Your task to perform on an android device: toggle priority inbox in the gmail app Image 0: 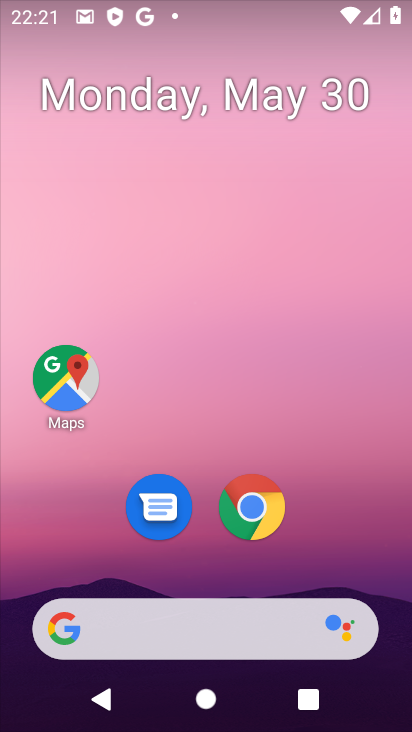
Step 0: drag from (360, 554) to (341, 151)
Your task to perform on an android device: toggle priority inbox in the gmail app Image 1: 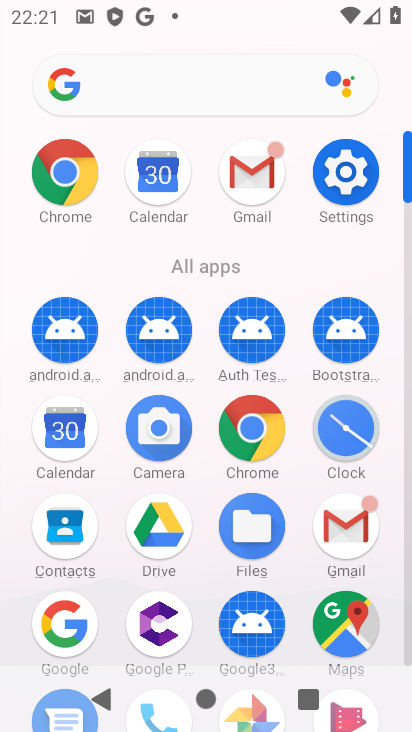
Step 1: click (338, 535)
Your task to perform on an android device: toggle priority inbox in the gmail app Image 2: 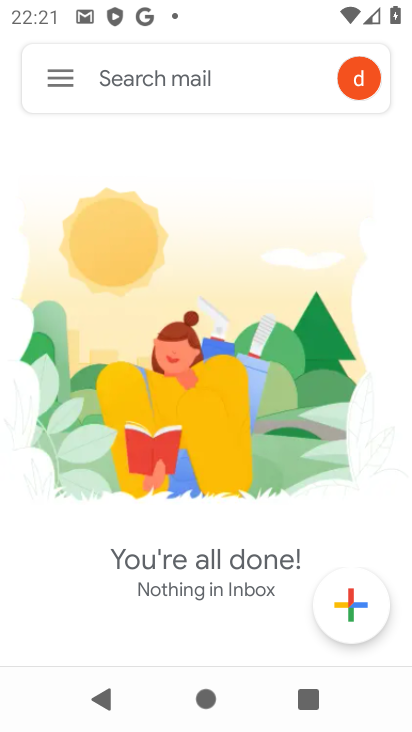
Step 2: click (56, 83)
Your task to perform on an android device: toggle priority inbox in the gmail app Image 3: 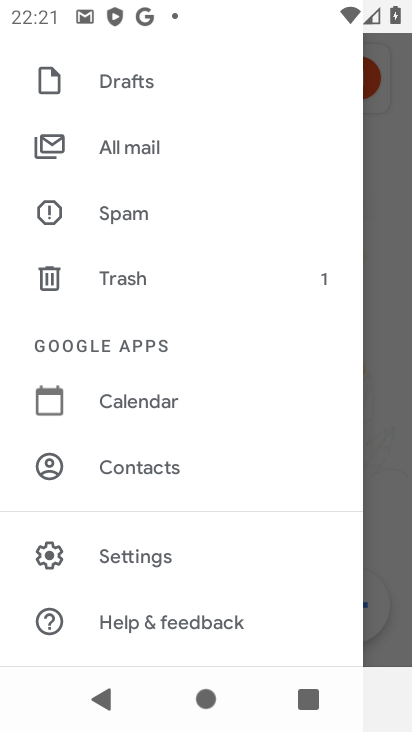
Step 3: drag from (267, 187) to (269, 288)
Your task to perform on an android device: toggle priority inbox in the gmail app Image 4: 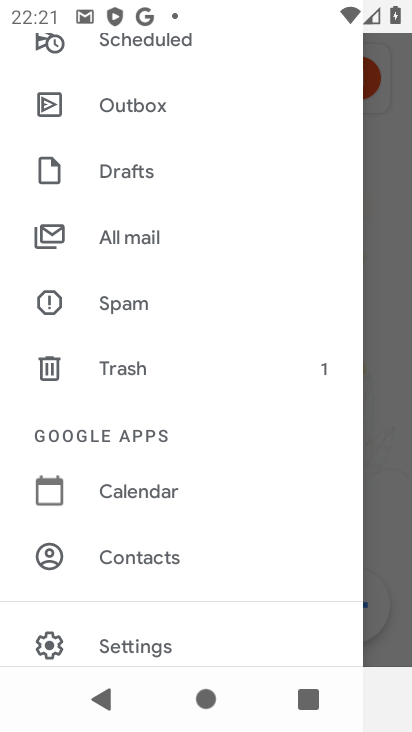
Step 4: drag from (259, 202) to (270, 265)
Your task to perform on an android device: toggle priority inbox in the gmail app Image 5: 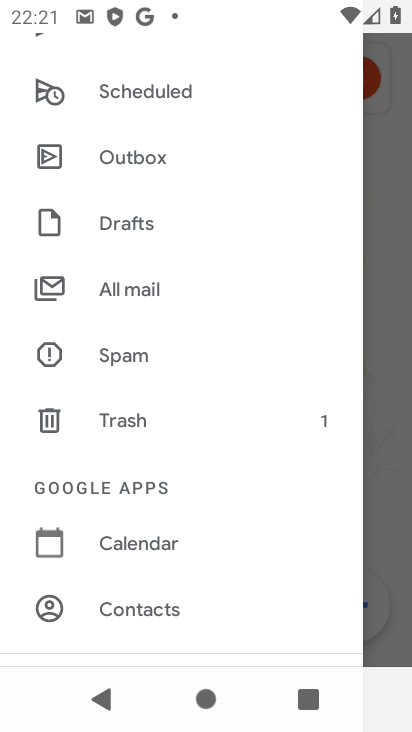
Step 5: drag from (284, 168) to (292, 289)
Your task to perform on an android device: toggle priority inbox in the gmail app Image 6: 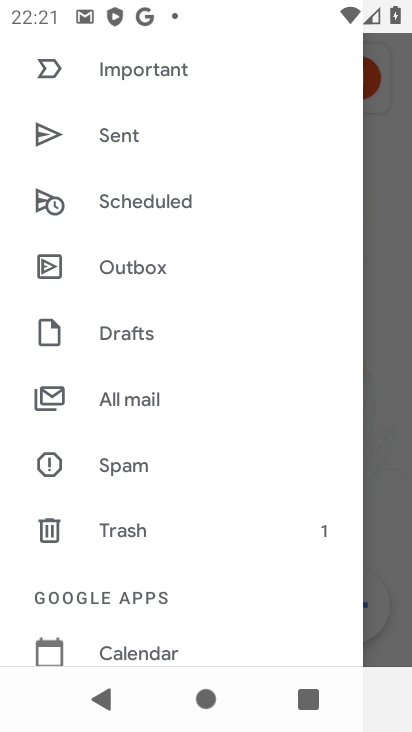
Step 6: drag from (272, 159) to (277, 308)
Your task to perform on an android device: toggle priority inbox in the gmail app Image 7: 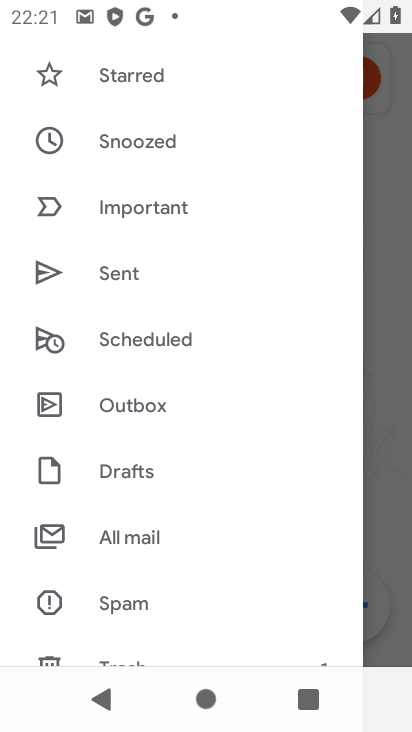
Step 7: drag from (295, 147) to (298, 302)
Your task to perform on an android device: toggle priority inbox in the gmail app Image 8: 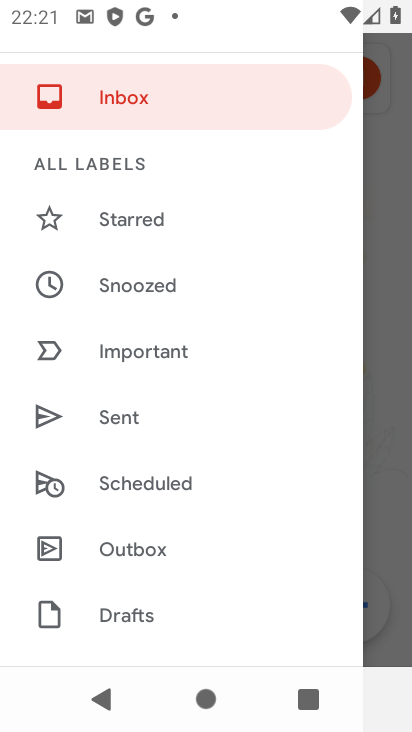
Step 8: drag from (293, 374) to (287, 253)
Your task to perform on an android device: toggle priority inbox in the gmail app Image 9: 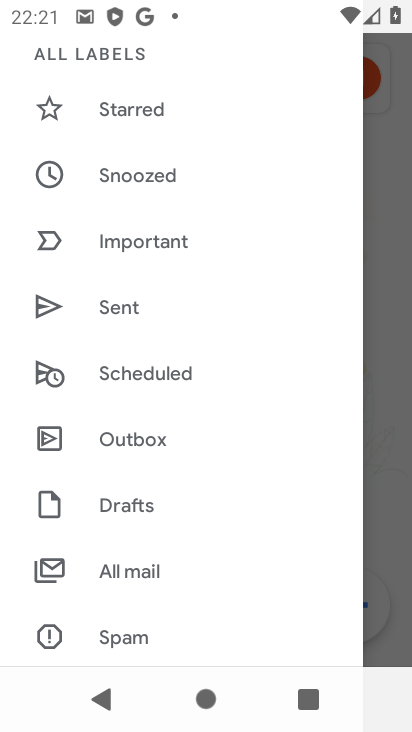
Step 9: drag from (274, 426) to (289, 274)
Your task to perform on an android device: toggle priority inbox in the gmail app Image 10: 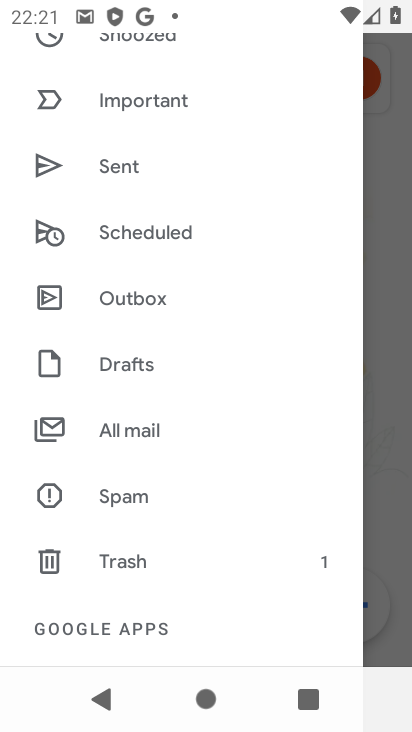
Step 10: drag from (270, 460) to (273, 328)
Your task to perform on an android device: toggle priority inbox in the gmail app Image 11: 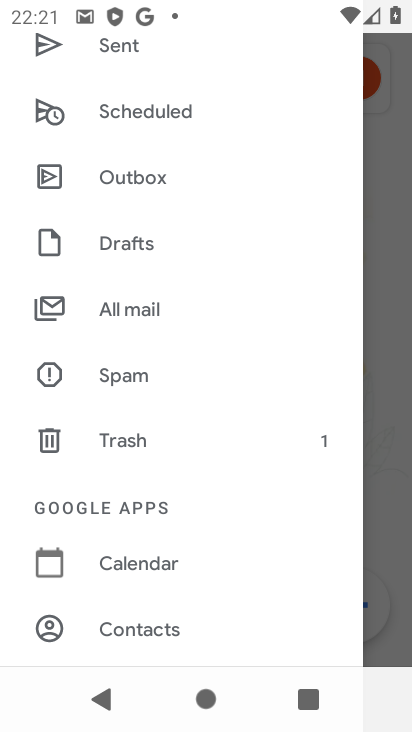
Step 11: drag from (245, 488) to (244, 337)
Your task to perform on an android device: toggle priority inbox in the gmail app Image 12: 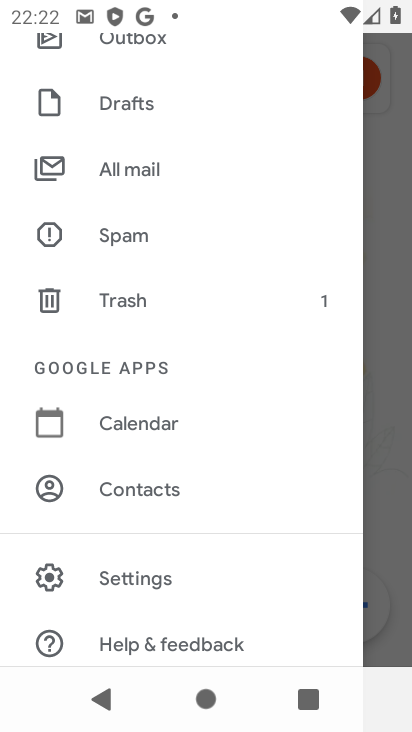
Step 12: drag from (256, 474) to (259, 320)
Your task to perform on an android device: toggle priority inbox in the gmail app Image 13: 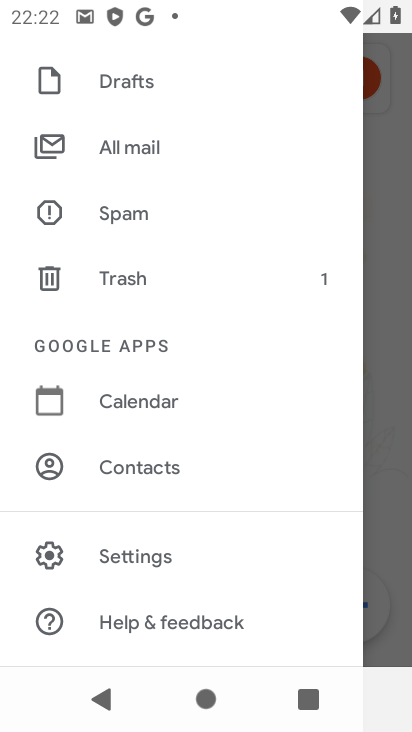
Step 13: click (155, 563)
Your task to perform on an android device: toggle priority inbox in the gmail app Image 14: 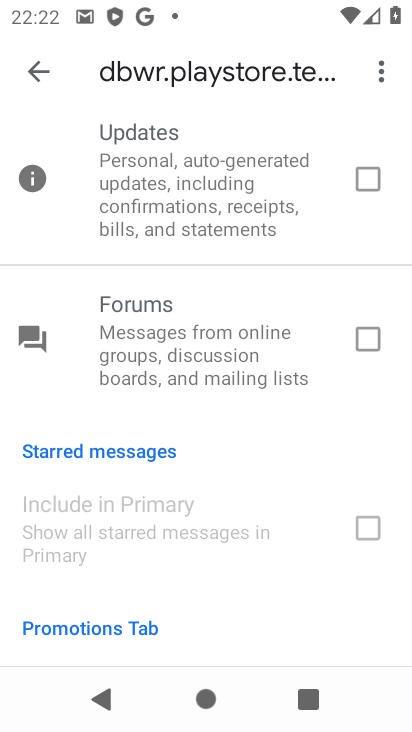
Step 14: click (35, 75)
Your task to perform on an android device: toggle priority inbox in the gmail app Image 15: 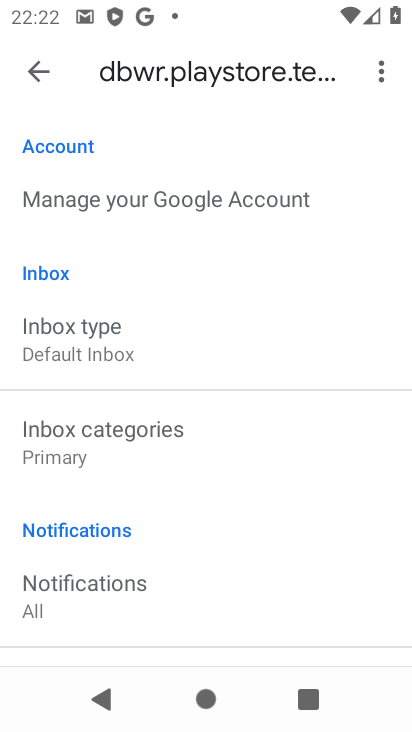
Step 15: click (133, 342)
Your task to perform on an android device: toggle priority inbox in the gmail app Image 16: 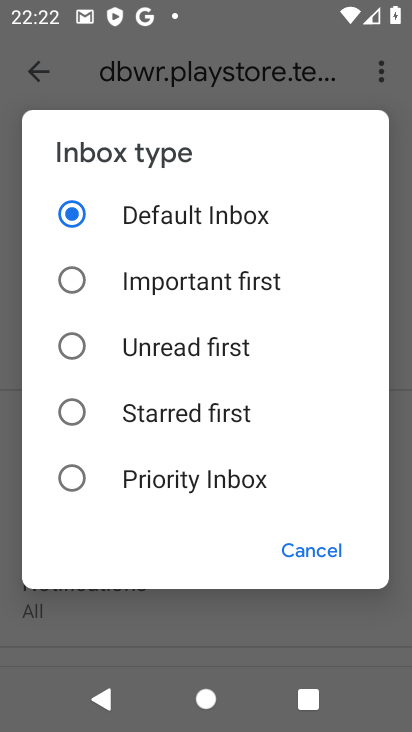
Step 16: click (236, 491)
Your task to perform on an android device: toggle priority inbox in the gmail app Image 17: 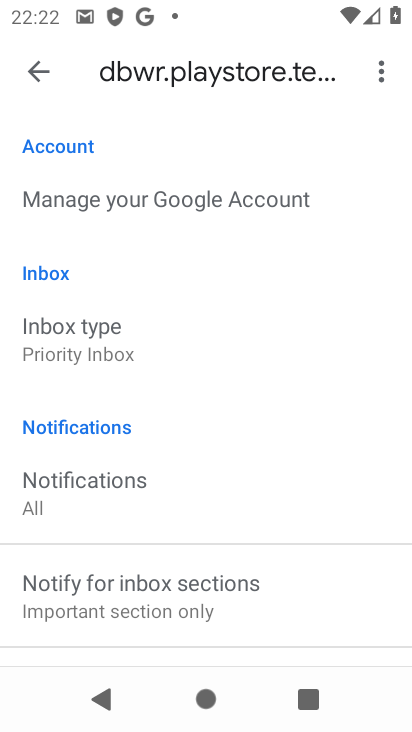
Step 17: task complete